Your task to perform on an android device: Open display settings Image 0: 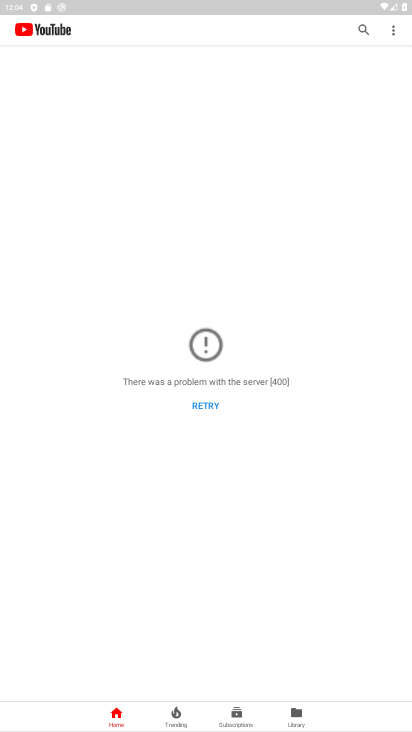
Step 0: press home button
Your task to perform on an android device: Open display settings Image 1: 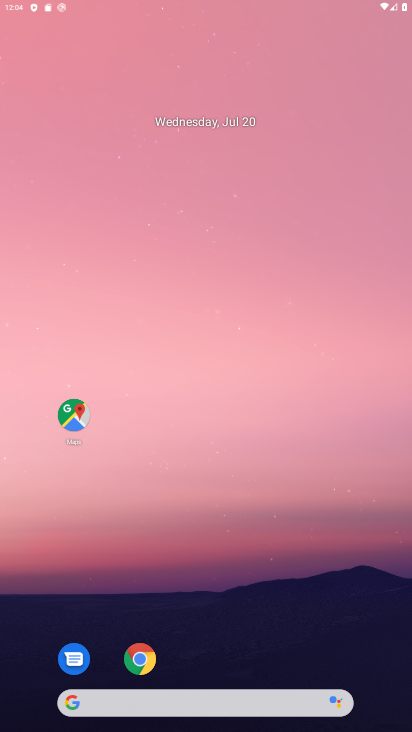
Step 1: drag from (364, 656) to (160, 25)
Your task to perform on an android device: Open display settings Image 2: 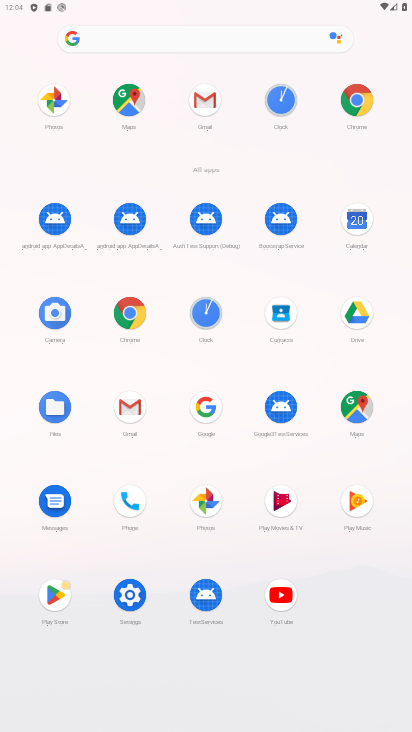
Step 2: click (125, 601)
Your task to perform on an android device: Open display settings Image 3: 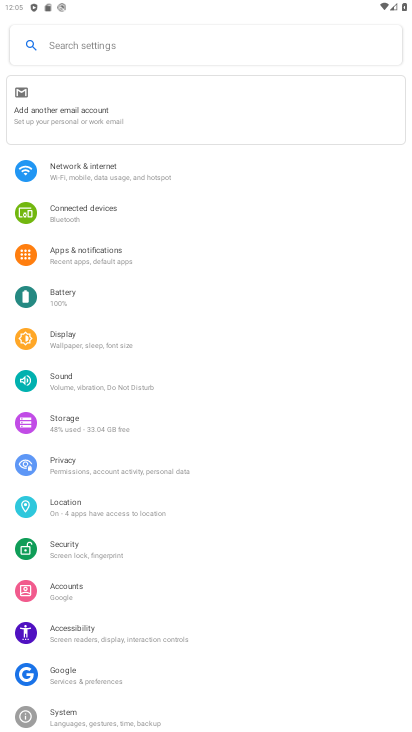
Step 3: click (60, 339)
Your task to perform on an android device: Open display settings Image 4: 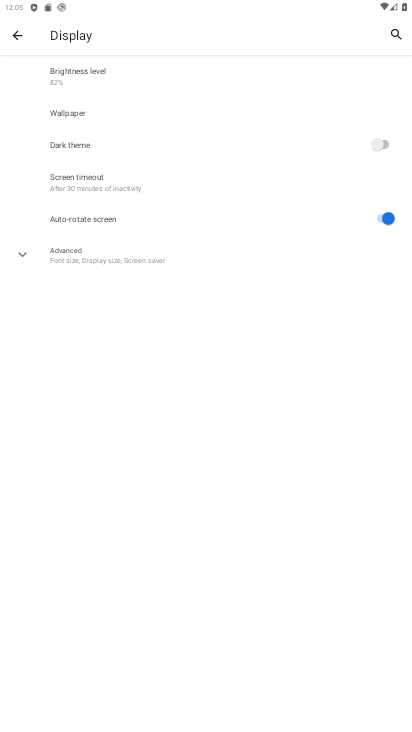
Step 4: task complete